Your task to perform on an android device: toggle show notifications on the lock screen Image 0: 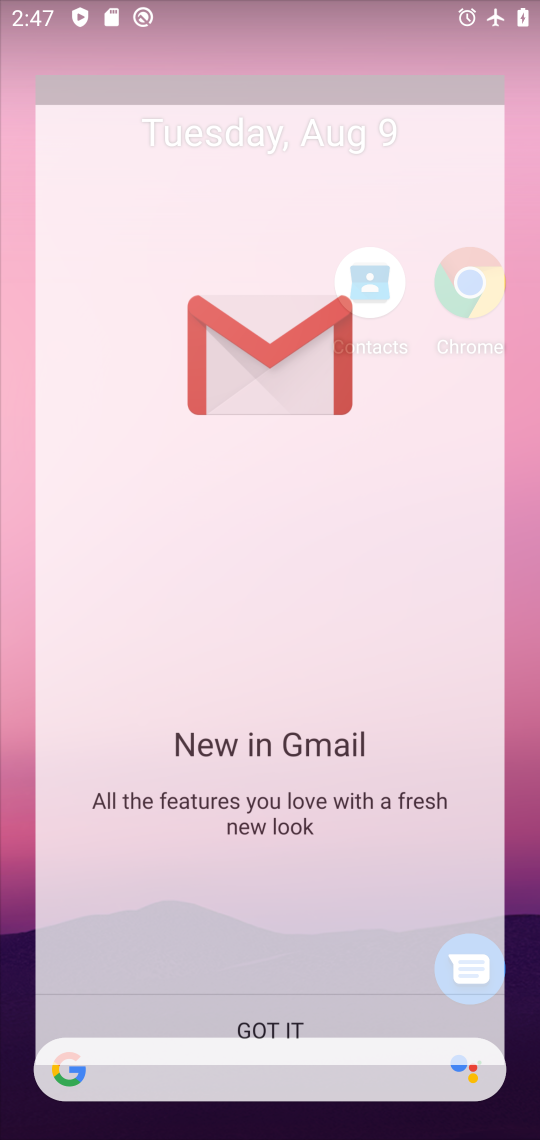
Step 0: click (449, 426)
Your task to perform on an android device: toggle show notifications on the lock screen Image 1: 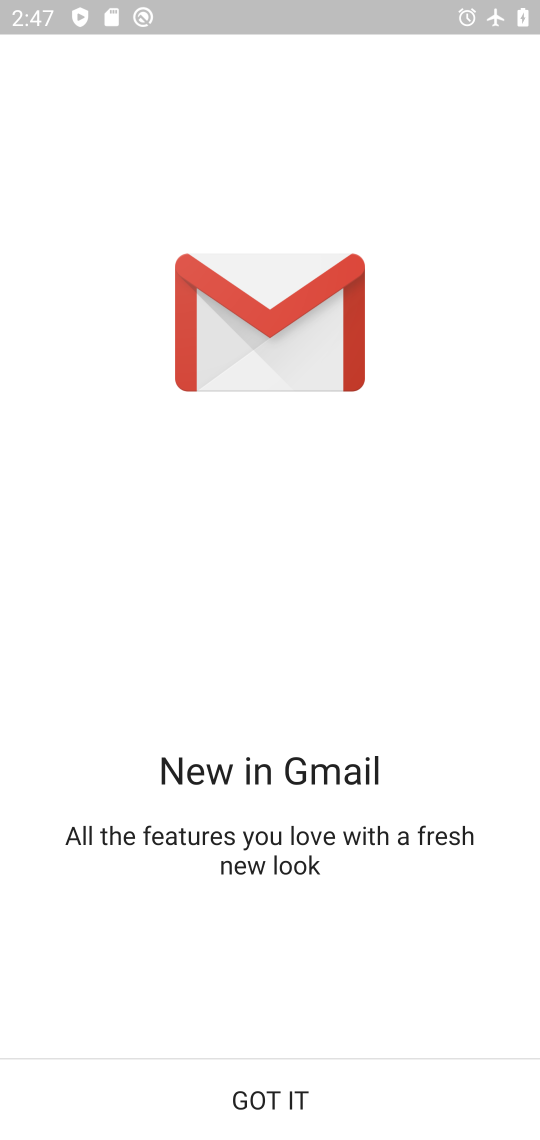
Step 1: press home button
Your task to perform on an android device: toggle show notifications on the lock screen Image 2: 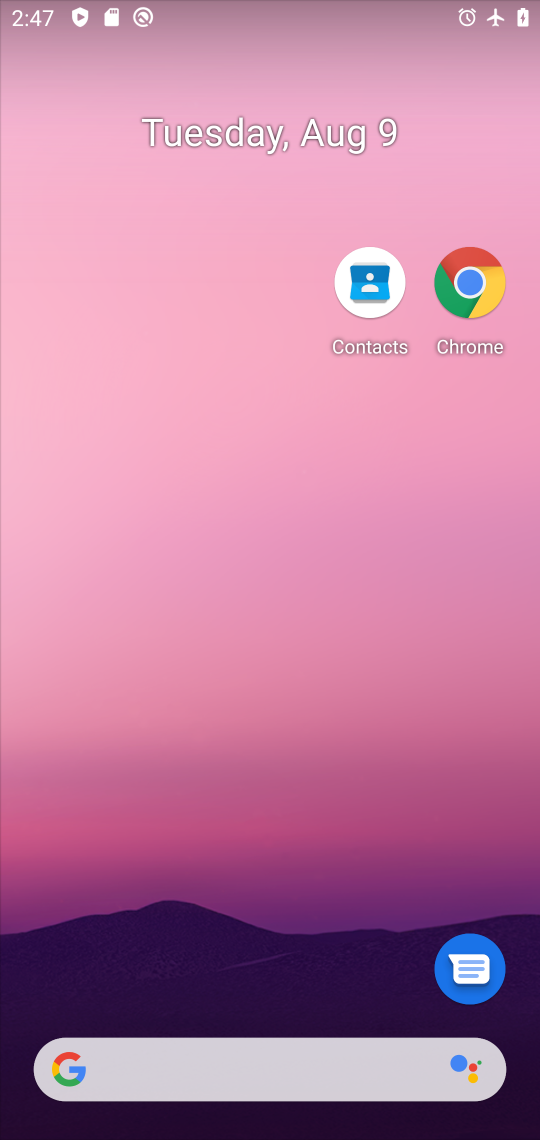
Step 2: drag from (153, 995) to (468, 37)
Your task to perform on an android device: toggle show notifications on the lock screen Image 3: 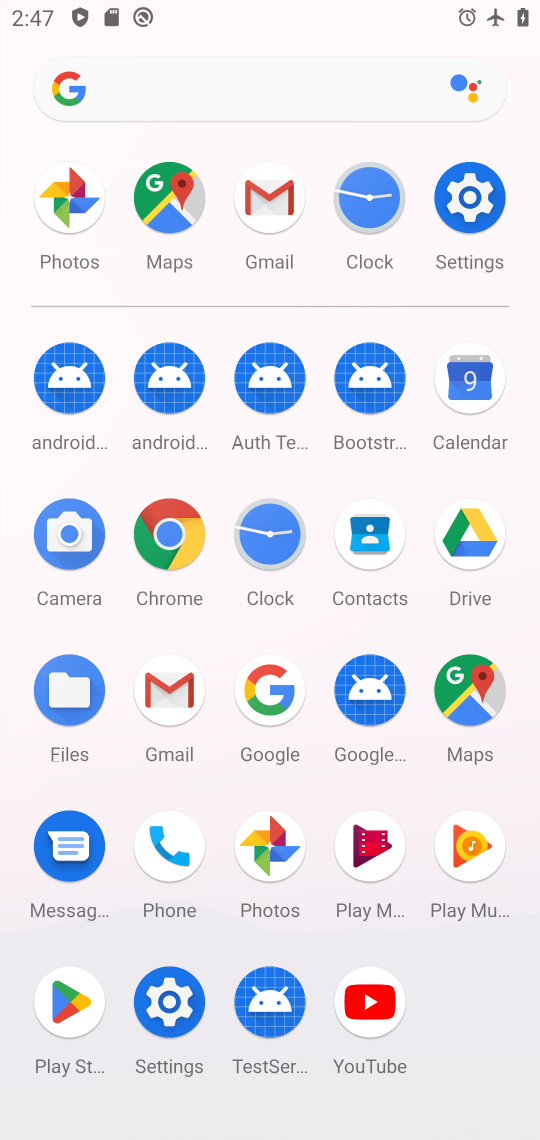
Step 3: click (158, 1010)
Your task to perform on an android device: toggle show notifications on the lock screen Image 4: 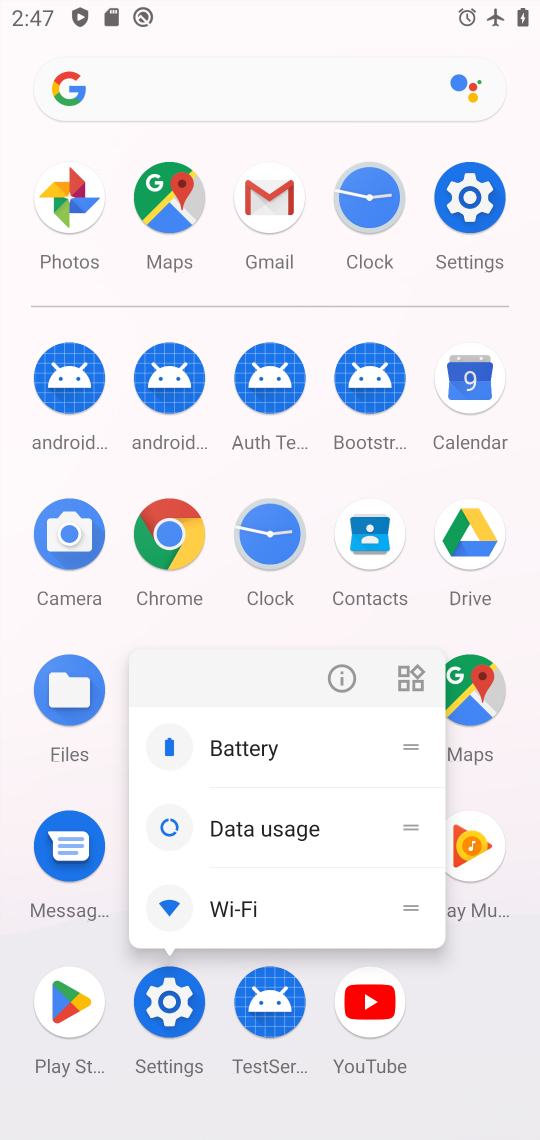
Step 4: click (327, 687)
Your task to perform on an android device: toggle show notifications on the lock screen Image 5: 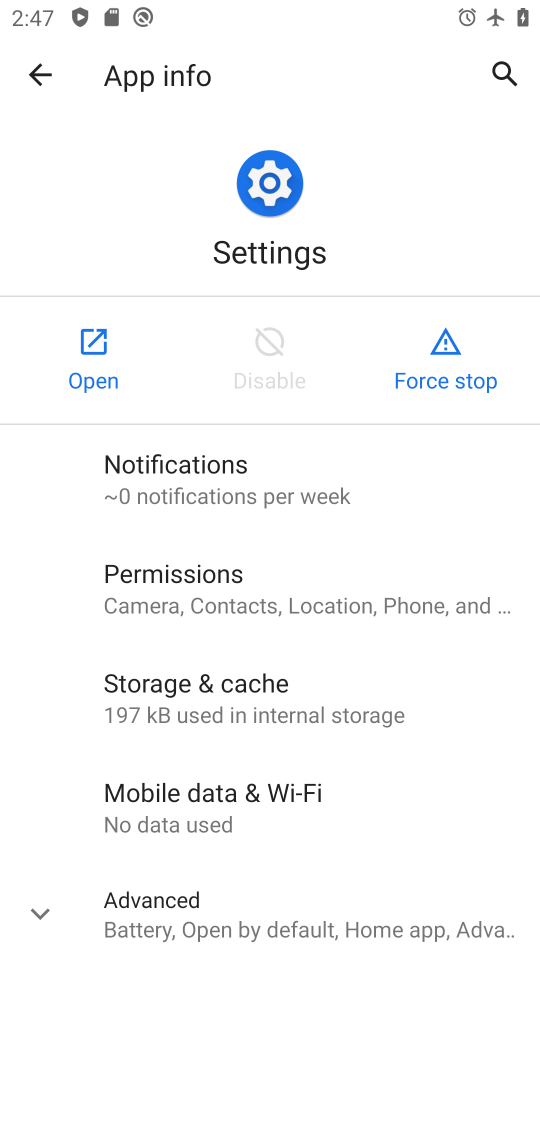
Step 5: click (92, 337)
Your task to perform on an android device: toggle show notifications on the lock screen Image 6: 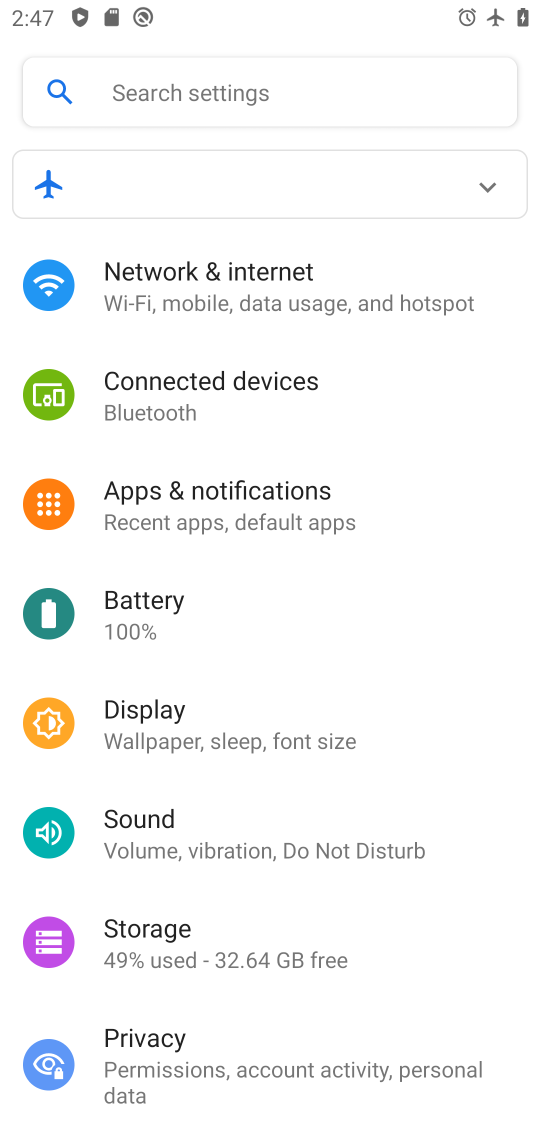
Step 6: click (210, 508)
Your task to perform on an android device: toggle show notifications on the lock screen Image 7: 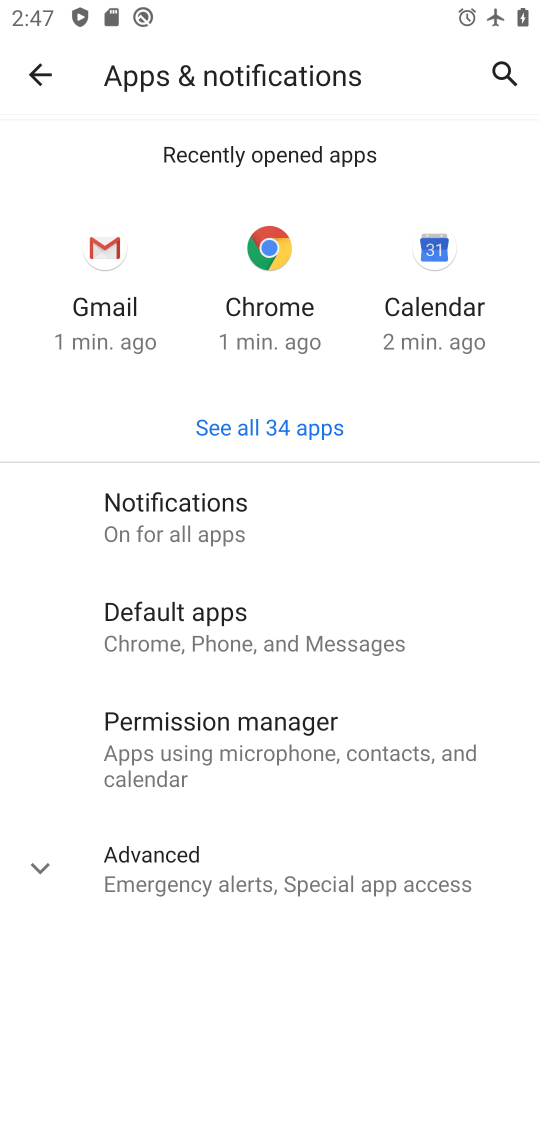
Step 7: click (286, 520)
Your task to perform on an android device: toggle show notifications on the lock screen Image 8: 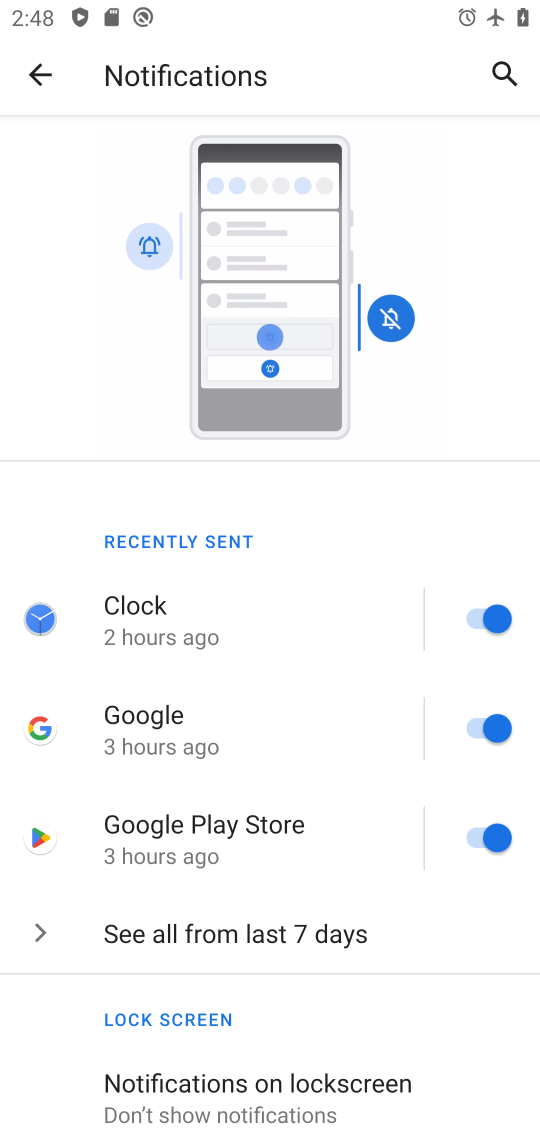
Step 8: click (272, 1094)
Your task to perform on an android device: toggle show notifications on the lock screen Image 9: 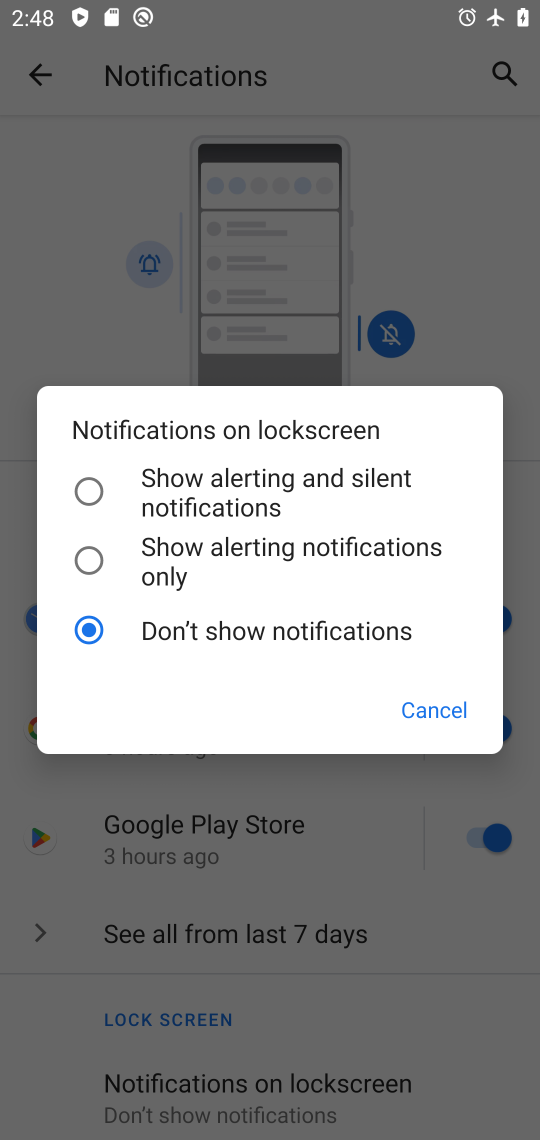
Step 9: click (191, 492)
Your task to perform on an android device: toggle show notifications on the lock screen Image 10: 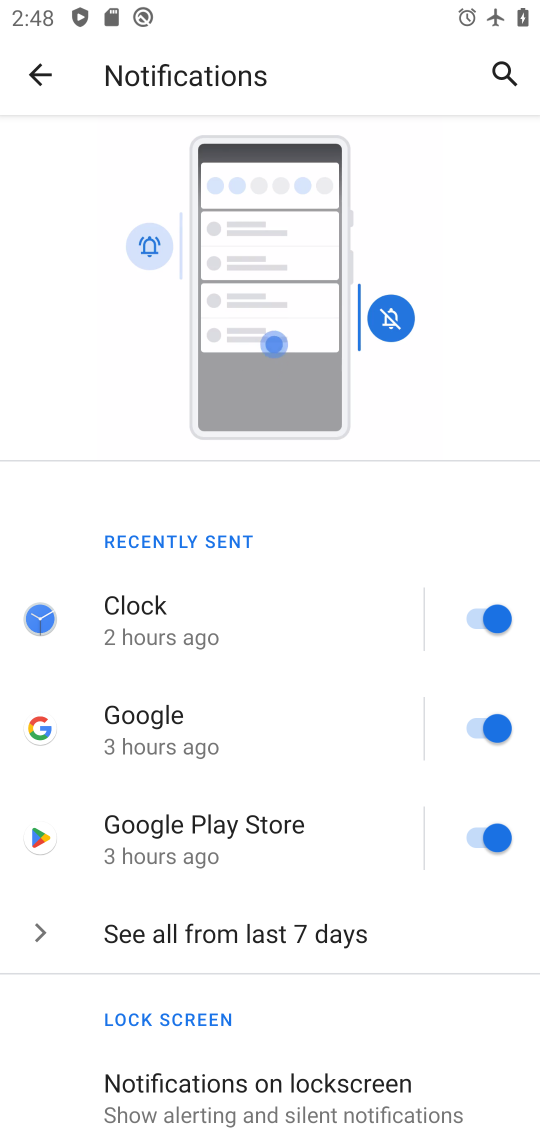
Step 10: task complete